Your task to perform on an android device: Open internet settings Image 0: 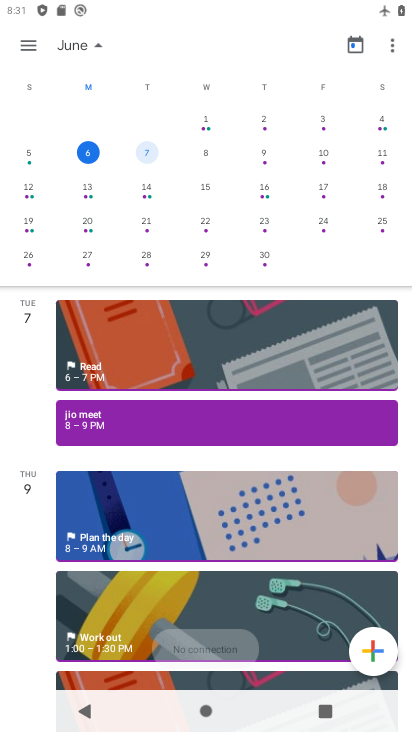
Step 0: press home button
Your task to perform on an android device: Open internet settings Image 1: 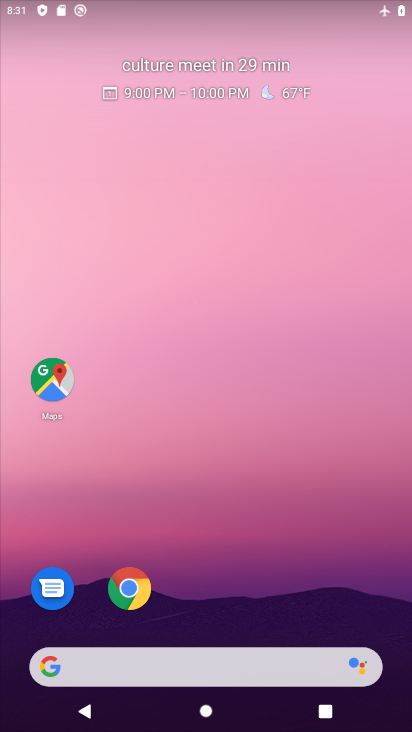
Step 1: drag from (274, 619) to (367, 43)
Your task to perform on an android device: Open internet settings Image 2: 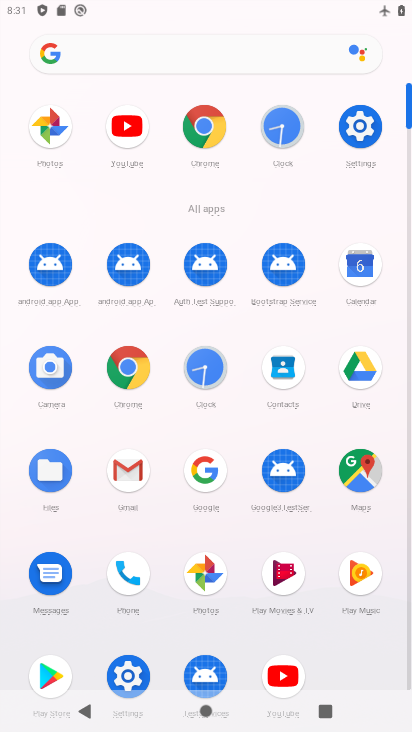
Step 2: click (394, 105)
Your task to perform on an android device: Open internet settings Image 3: 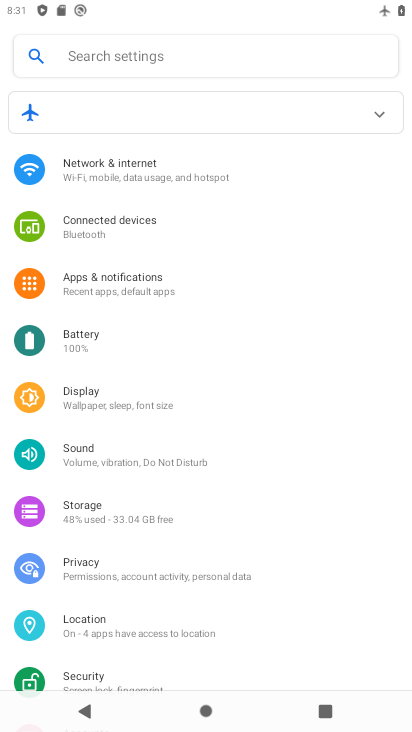
Step 3: click (165, 164)
Your task to perform on an android device: Open internet settings Image 4: 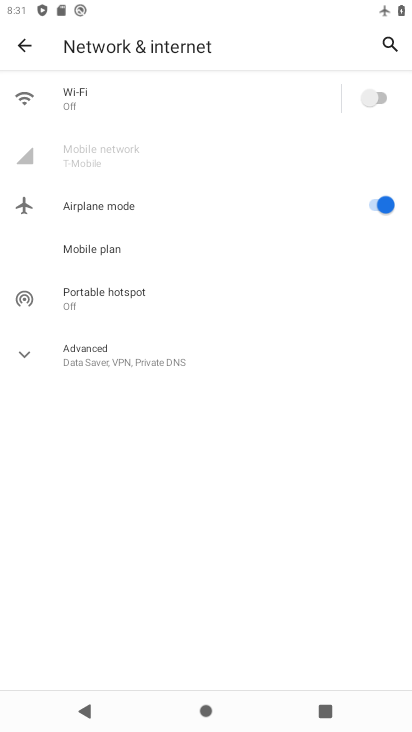
Step 4: task complete